Your task to perform on an android device: Search for pizza restaurants on Maps Image 0: 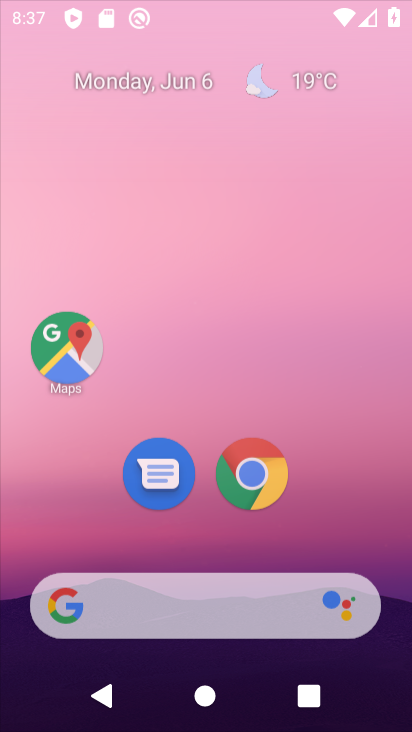
Step 0: press home button
Your task to perform on an android device: Search for pizza restaurants on Maps Image 1: 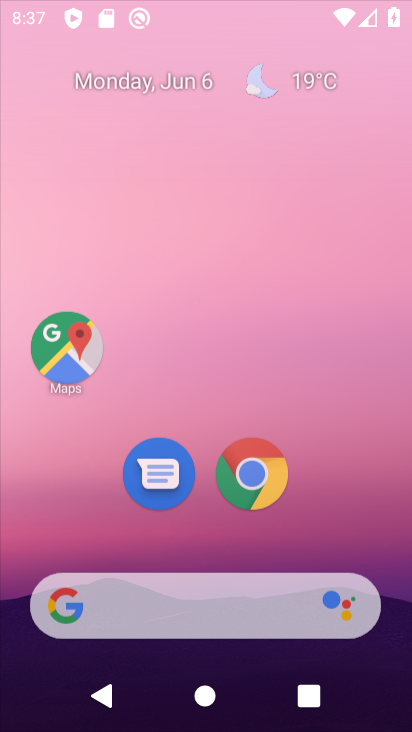
Step 1: click (271, 3)
Your task to perform on an android device: Search for pizza restaurants on Maps Image 2: 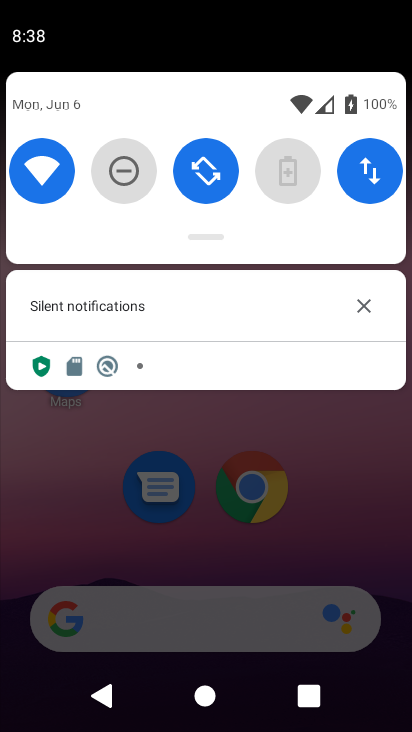
Step 2: drag from (206, 560) to (241, 134)
Your task to perform on an android device: Search for pizza restaurants on Maps Image 3: 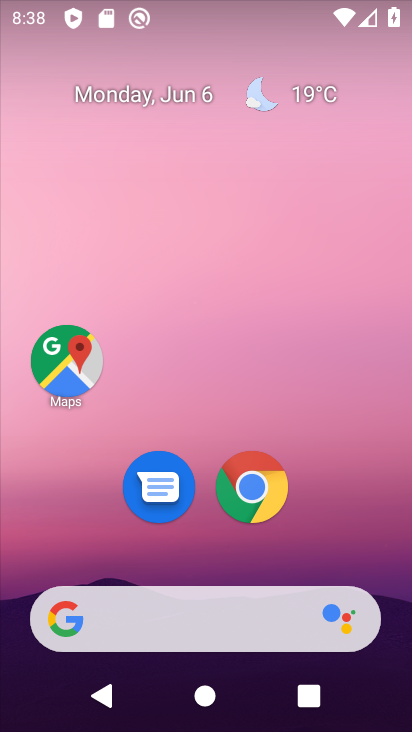
Step 3: drag from (196, 558) to (260, 31)
Your task to perform on an android device: Search for pizza restaurants on Maps Image 4: 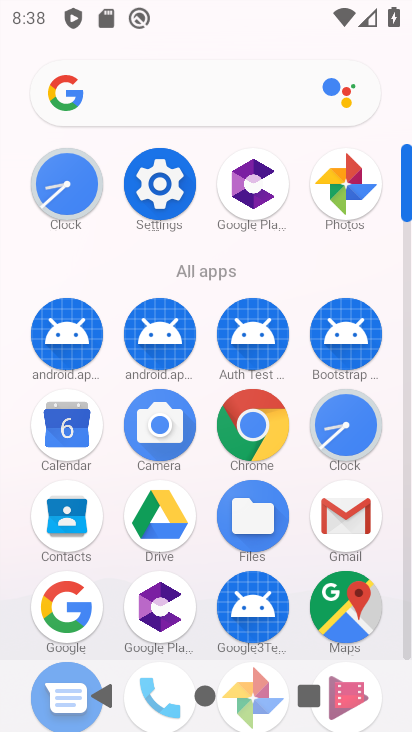
Step 4: click (347, 604)
Your task to perform on an android device: Search for pizza restaurants on Maps Image 5: 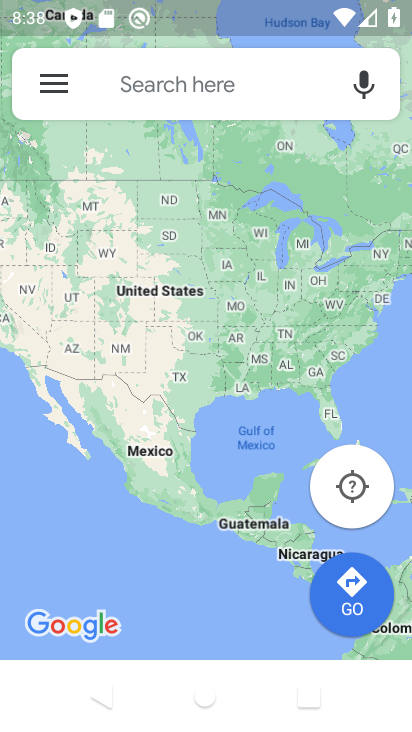
Step 5: click (186, 82)
Your task to perform on an android device: Search for pizza restaurants on Maps Image 6: 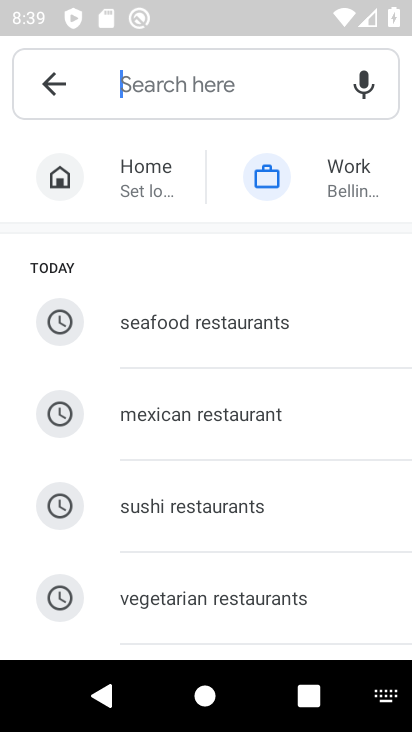
Step 6: type "pizza"
Your task to perform on an android device: Search for pizza restaurants on Maps Image 7: 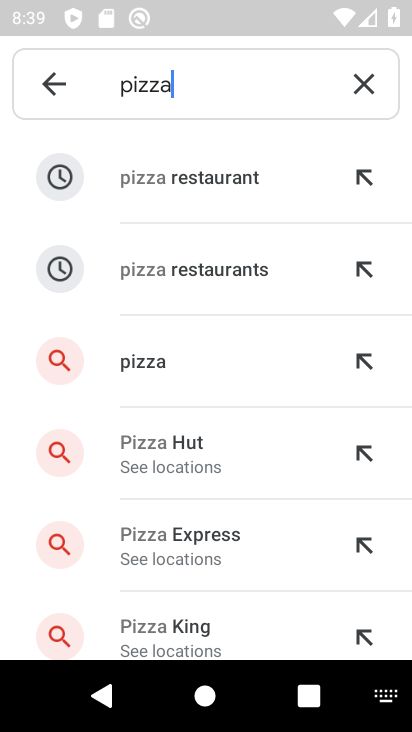
Step 7: click (263, 182)
Your task to perform on an android device: Search for pizza restaurants on Maps Image 8: 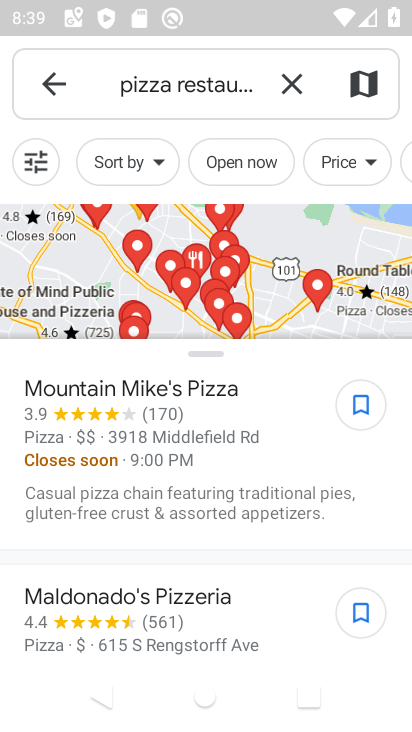
Step 8: task complete